Your task to perform on an android device: Search for Italian restaurants on Maps Image 0: 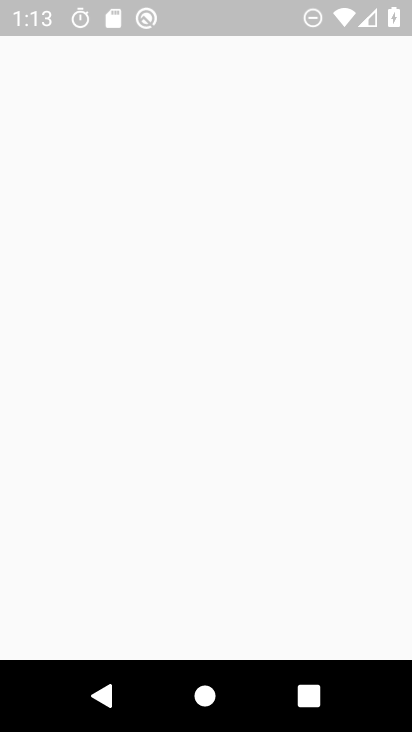
Step 0: press back button
Your task to perform on an android device: Search for Italian restaurants on Maps Image 1: 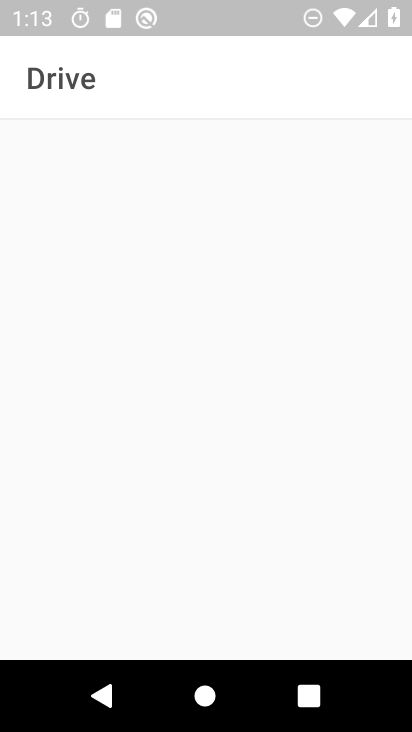
Step 1: press home button
Your task to perform on an android device: Search for Italian restaurants on Maps Image 2: 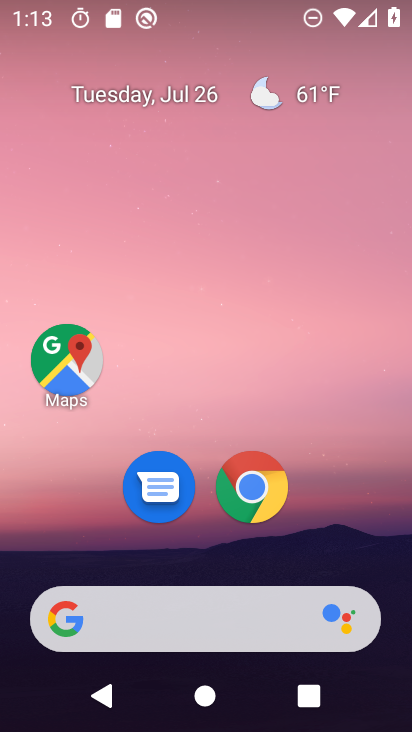
Step 2: drag from (62, 565) to (174, 28)
Your task to perform on an android device: Search for Italian restaurants on Maps Image 3: 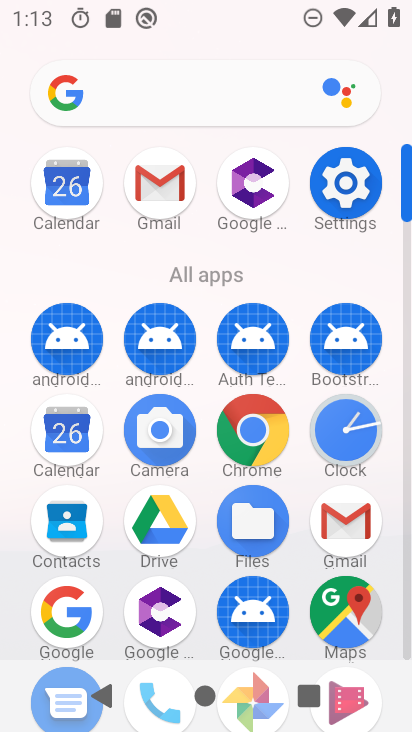
Step 3: click (339, 613)
Your task to perform on an android device: Search for Italian restaurants on Maps Image 4: 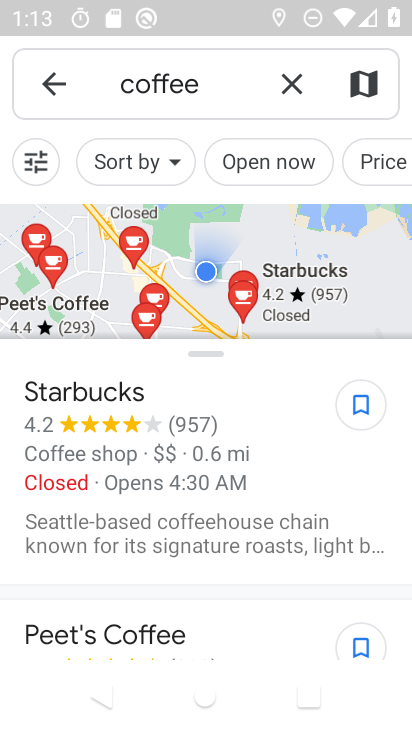
Step 4: click (289, 72)
Your task to perform on an android device: Search for Italian restaurants on Maps Image 5: 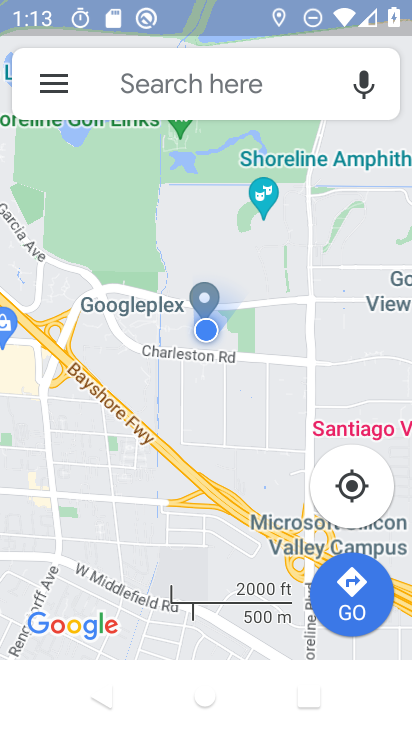
Step 5: click (174, 82)
Your task to perform on an android device: Search for Italian restaurants on Maps Image 6: 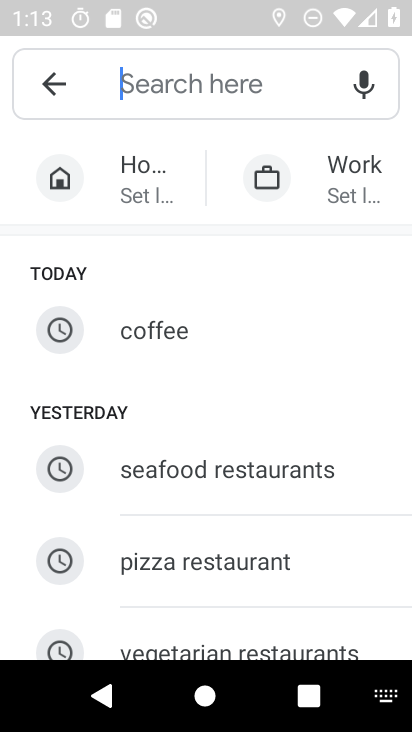
Step 6: drag from (193, 630) to (318, 165)
Your task to perform on an android device: Search for Italian restaurants on Maps Image 7: 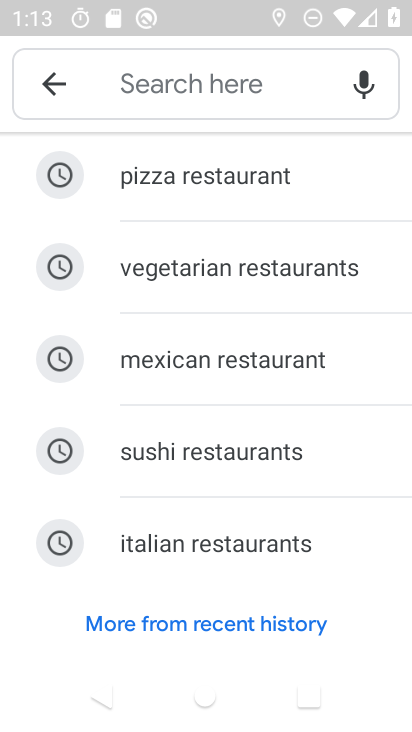
Step 7: click (190, 540)
Your task to perform on an android device: Search for Italian restaurants on Maps Image 8: 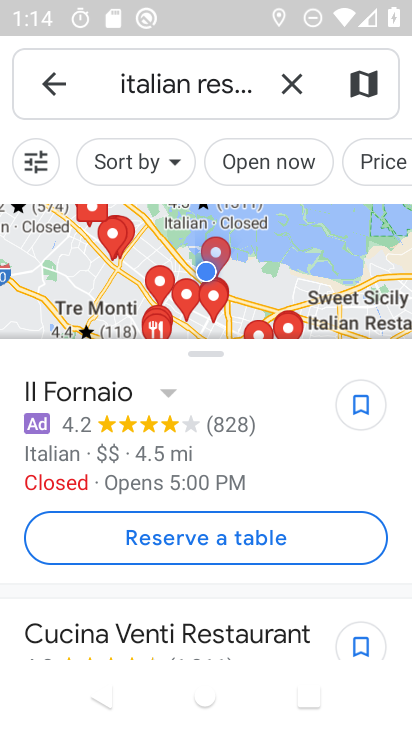
Step 8: task complete